Your task to perform on an android device: Open the stopwatch Image 0: 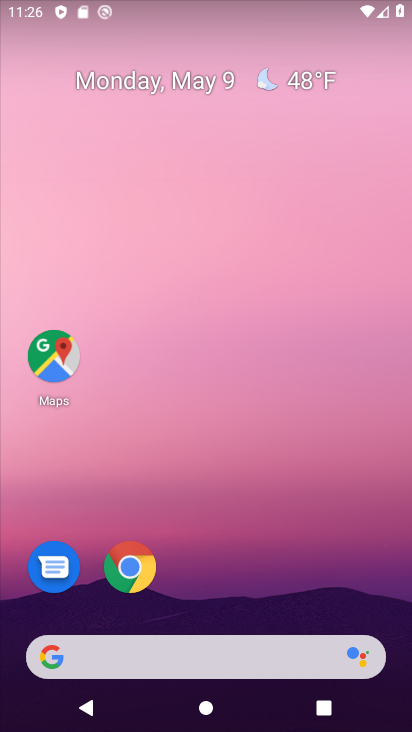
Step 0: drag from (169, 628) to (319, 96)
Your task to perform on an android device: Open the stopwatch Image 1: 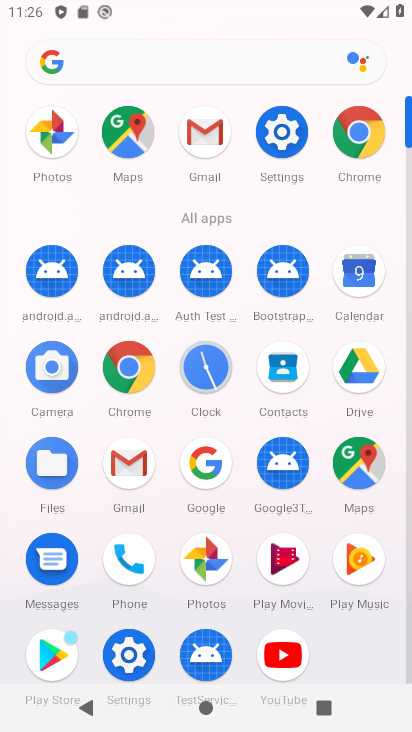
Step 1: click (220, 371)
Your task to perform on an android device: Open the stopwatch Image 2: 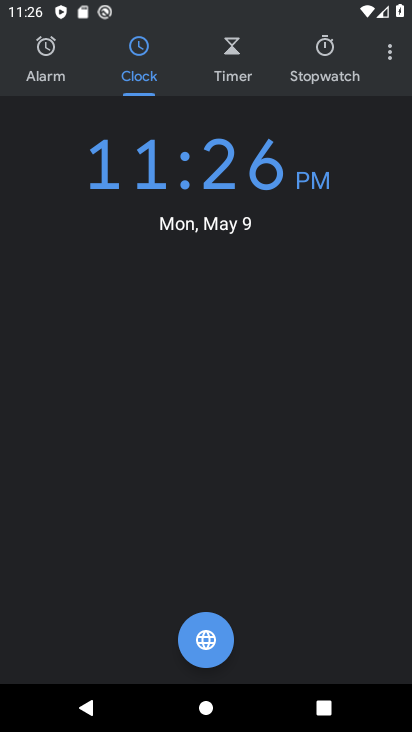
Step 2: click (338, 47)
Your task to perform on an android device: Open the stopwatch Image 3: 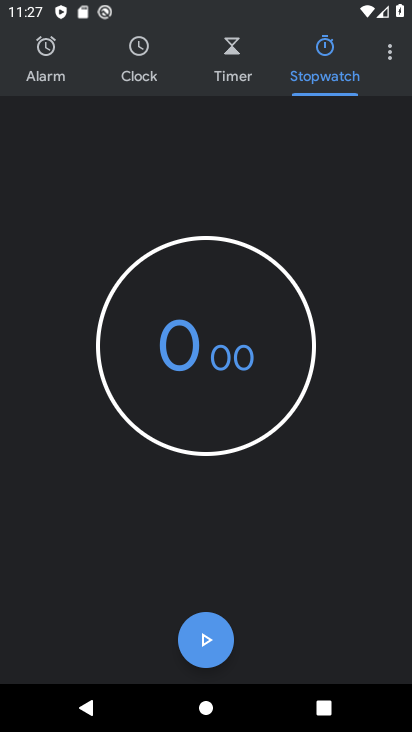
Step 3: task complete